Your task to perform on an android device: show emergency info Image 0: 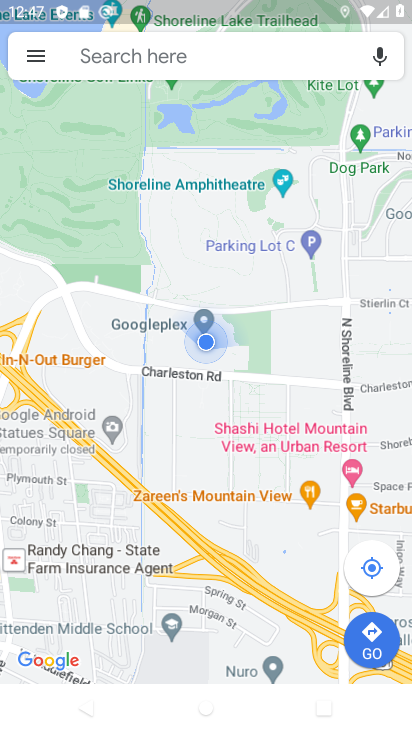
Step 0: press home button
Your task to perform on an android device: show emergency info Image 1: 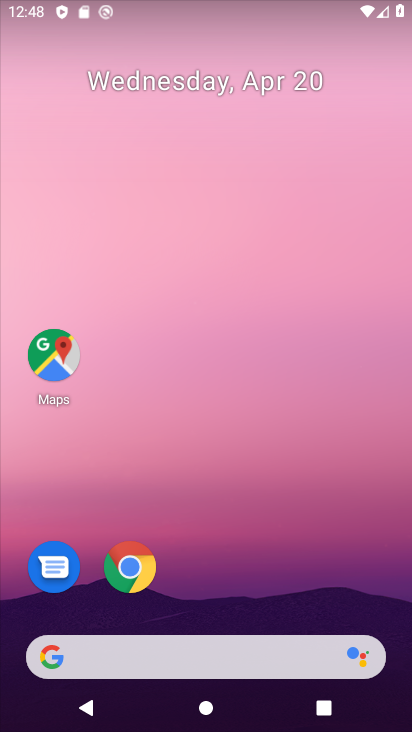
Step 1: drag from (132, 398) to (232, 178)
Your task to perform on an android device: show emergency info Image 2: 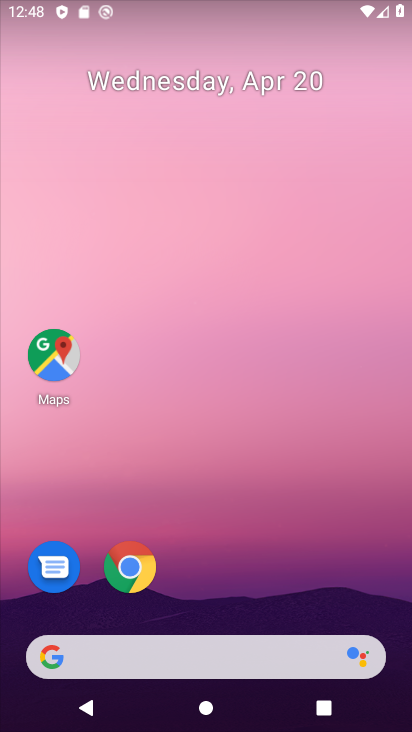
Step 2: drag from (165, 704) to (293, 205)
Your task to perform on an android device: show emergency info Image 3: 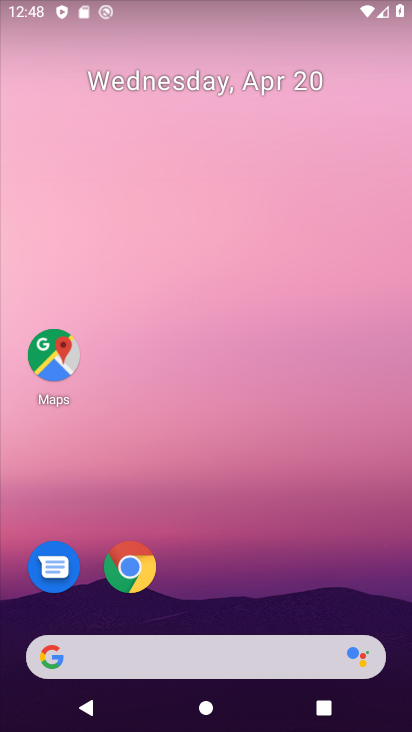
Step 3: drag from (1, 726) to (208, 238)
Your task to perform on an android device: show emergency info Image 4: 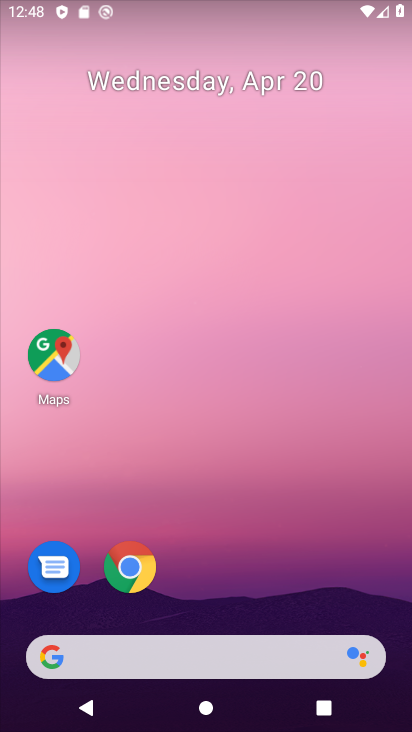
Step 4: drag from (118, 412) to (235, 307)
Your task to perform on an android device: show emergency info Image 5: 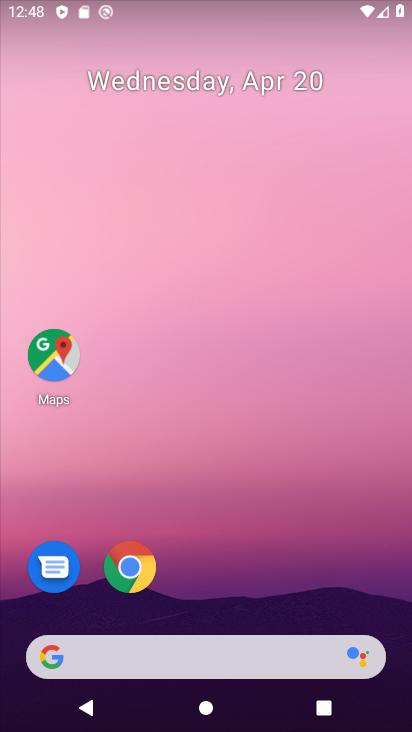
Step 5: drag from (45, 484) to (313, 107)
Your task to perform on an android device: show emergency info Image 6: 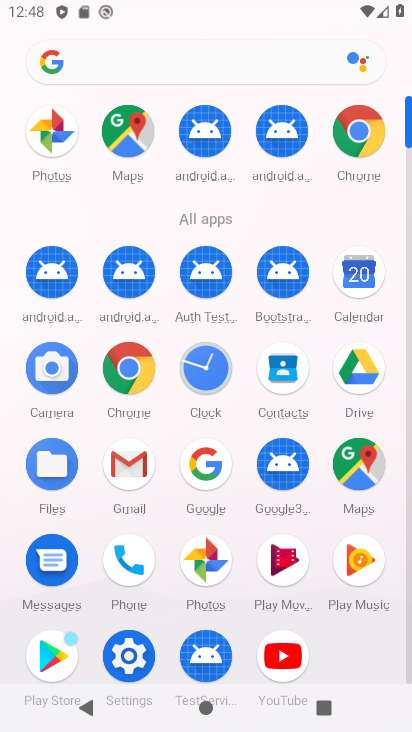
Step 6: click (108, 652)
Your task to perform on an android device: show emergency info Image 7: 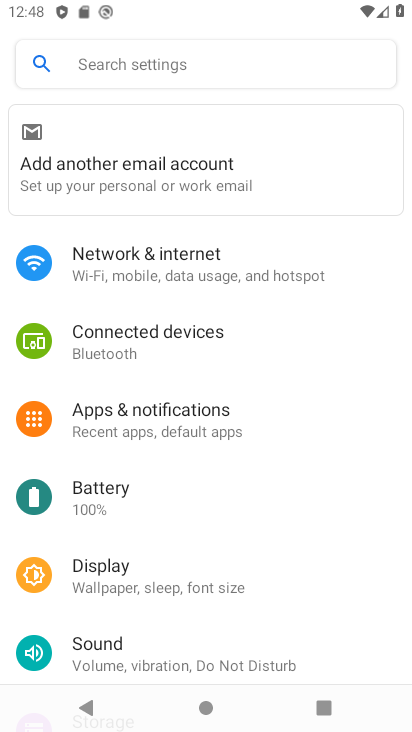
Step 7: drag from (196, 665) to (242, 233)
Your task to perform on an android device: show emergency info Image 8: 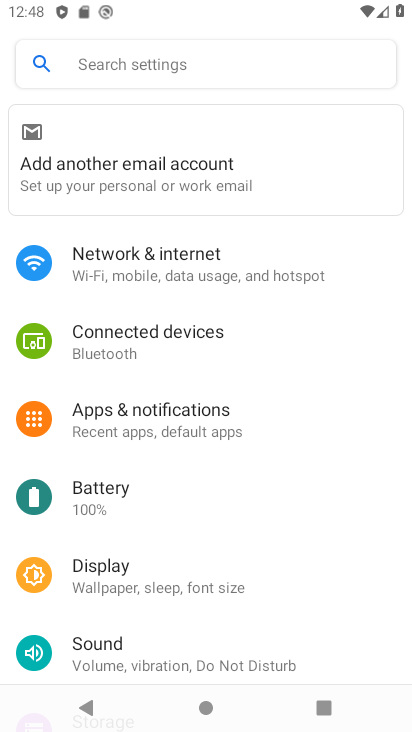
Step 8: drag from (120, 623) to (216, 185)
Your task to perform on an android device: show emergency info Image 9: 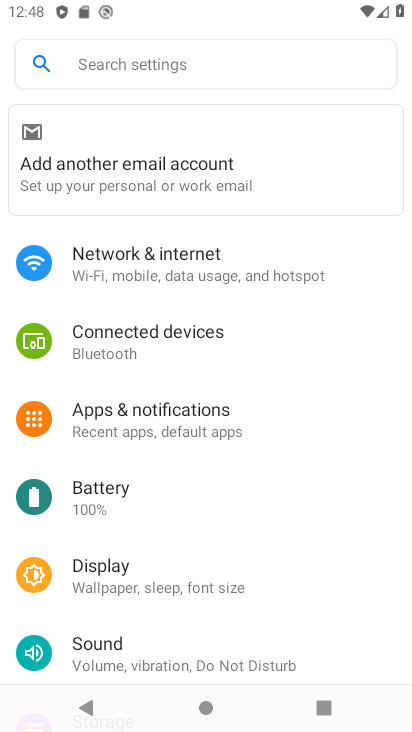
Step 9: drag from (34, 493) to (127, 247)
Your task to perform on an android device: show emergency info Image 10: 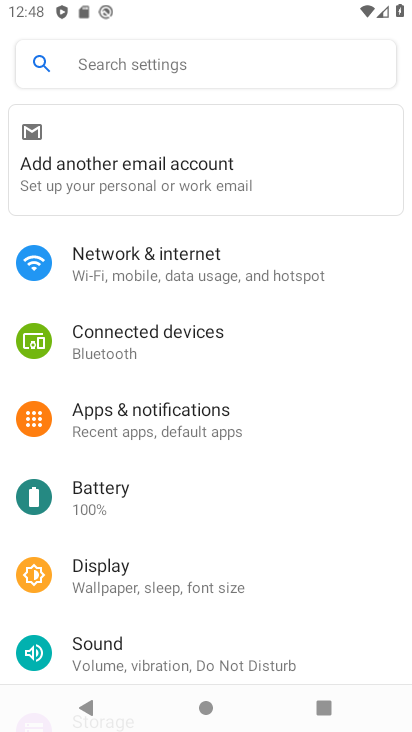
Step 10: drag from (59, 657) to (205, 258)
Your task to perform on an android device: show emergency info Image 11: 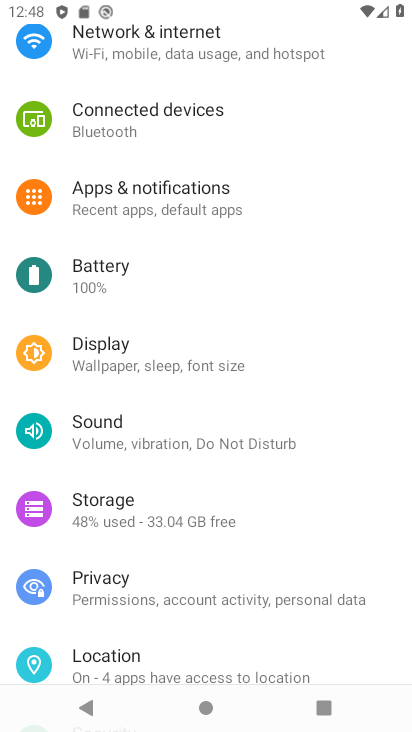
Step 11: drag from (135, 659) to (254, 240)
Your task to perform on an android device: show emergency info Image 12: 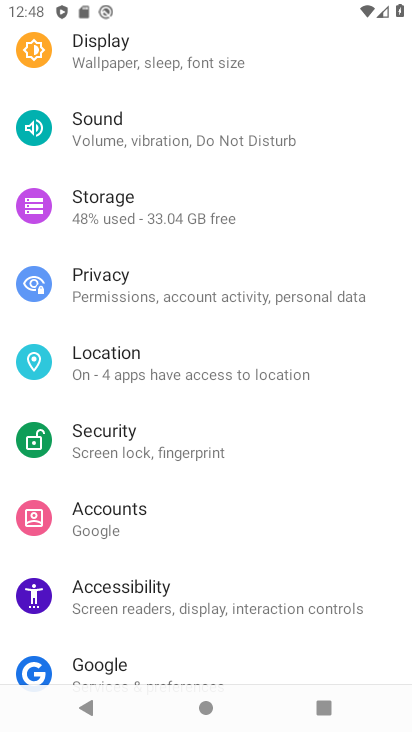
Step 12: drag from (208, 626) to (280, 183)
Your task to perform on an android device: show emergency info Image 13: 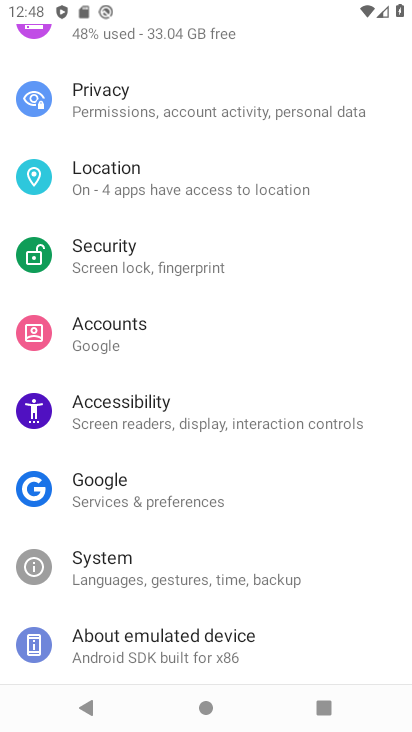
Step 13: drag from (246, 643) to (287, 221)
Your task to perform on an android device: show emergency info Image 14: 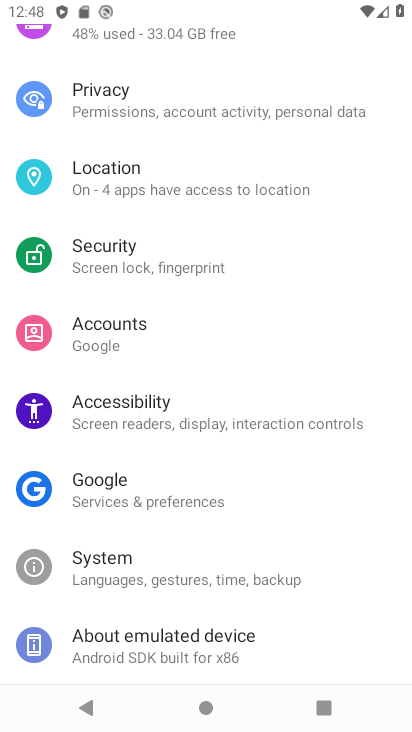
Step 14: click (201, 641)
Your task to perform on an android device: show emergency info Image 15: 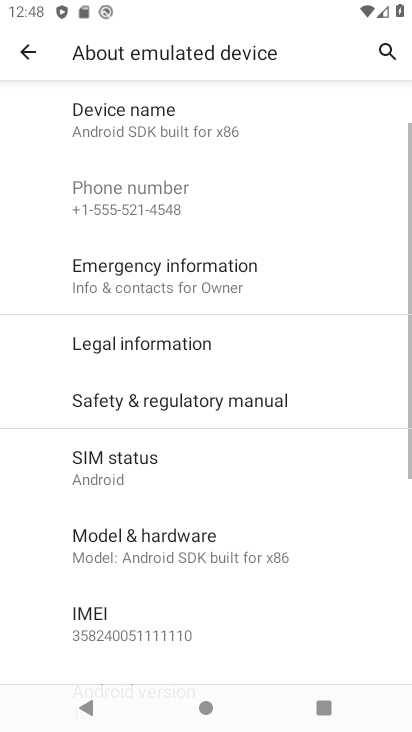
Step 15: click (227, 282)
Your task to perform on an android device: show emergency info Image 16: 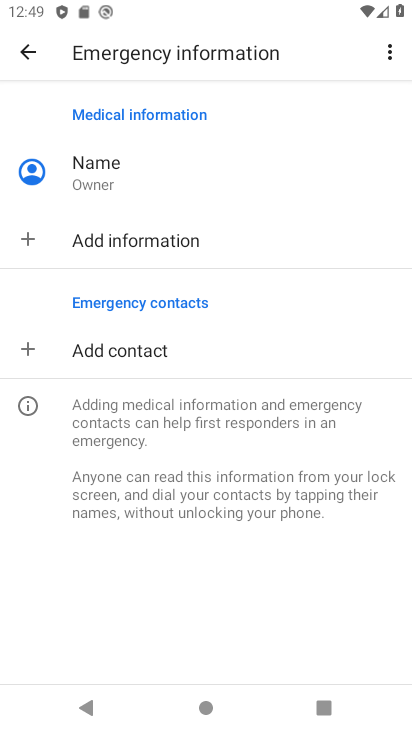
Step 16: task complete